Your task to perform on an android device: delete browsing data in the chrome app Image 0: 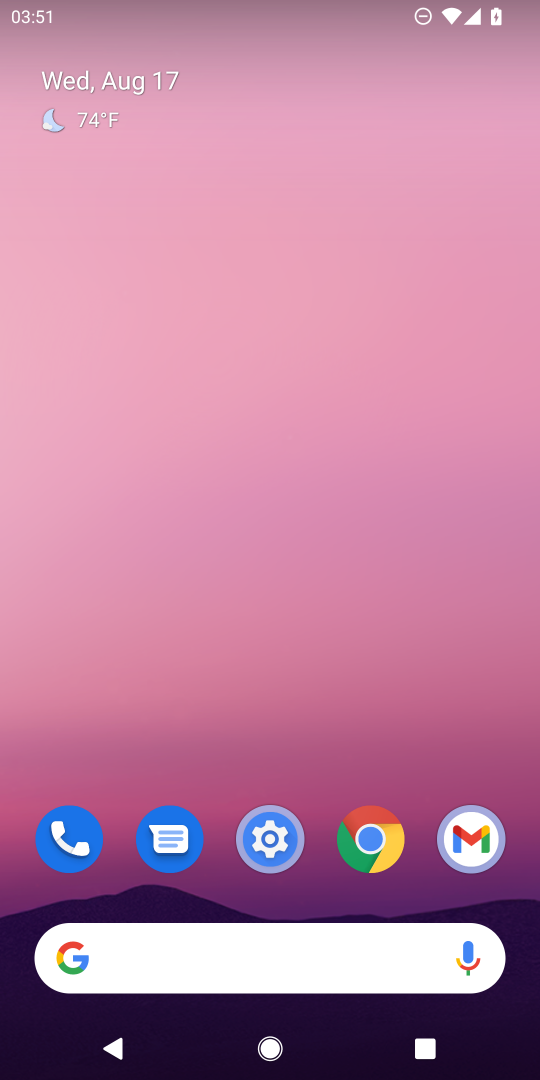
Step 0: click (358, 833)
Your task to perform on an android device: delete browsing data in the chrome app Image 1: 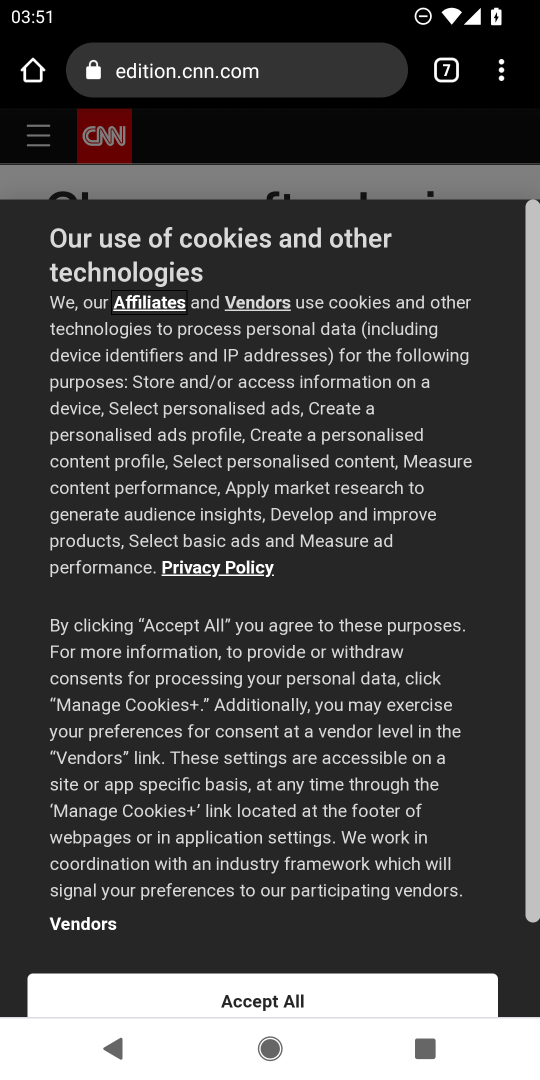
Step 1: press home button
Your task to perform on an android device: delete browsing data in the chrome app Image 2: 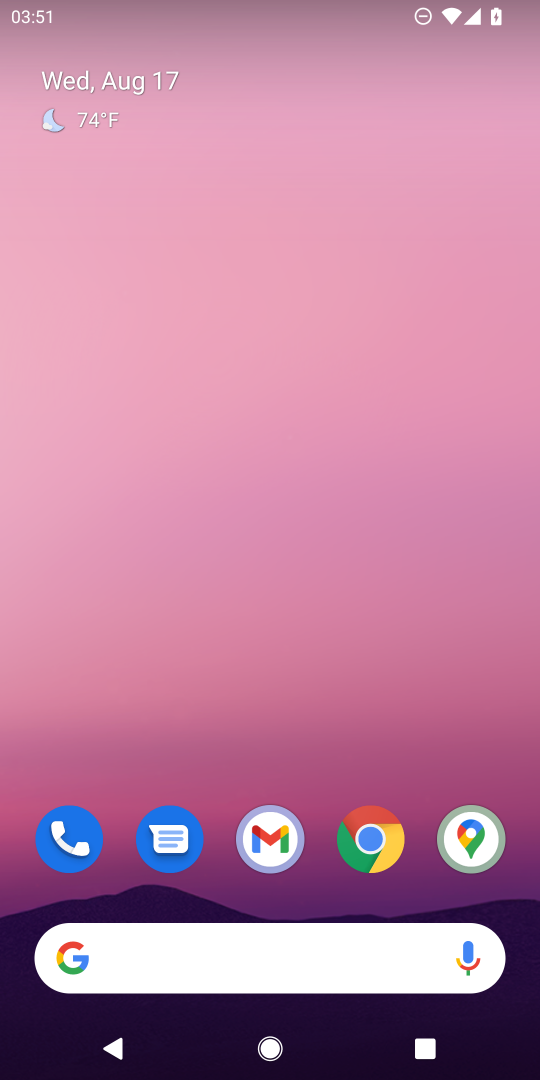
Step 2: click (366, 837)
Your task to perform on an android device: delete browsing data in the chrome app Image 3: 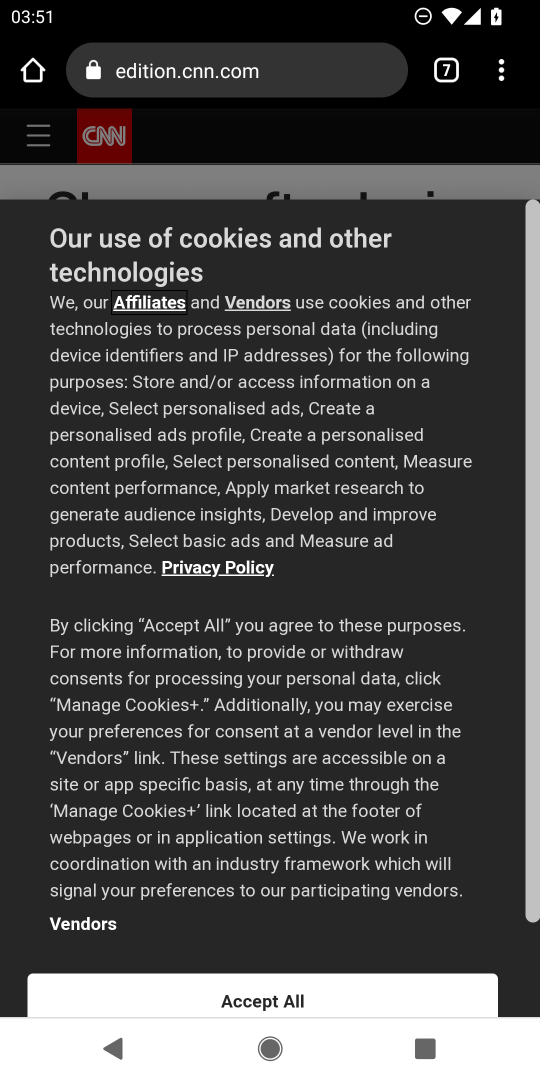
Step 3: click (502, 79)
Your task to perform on an android device: delete browsing data in the chrome app Image 4: 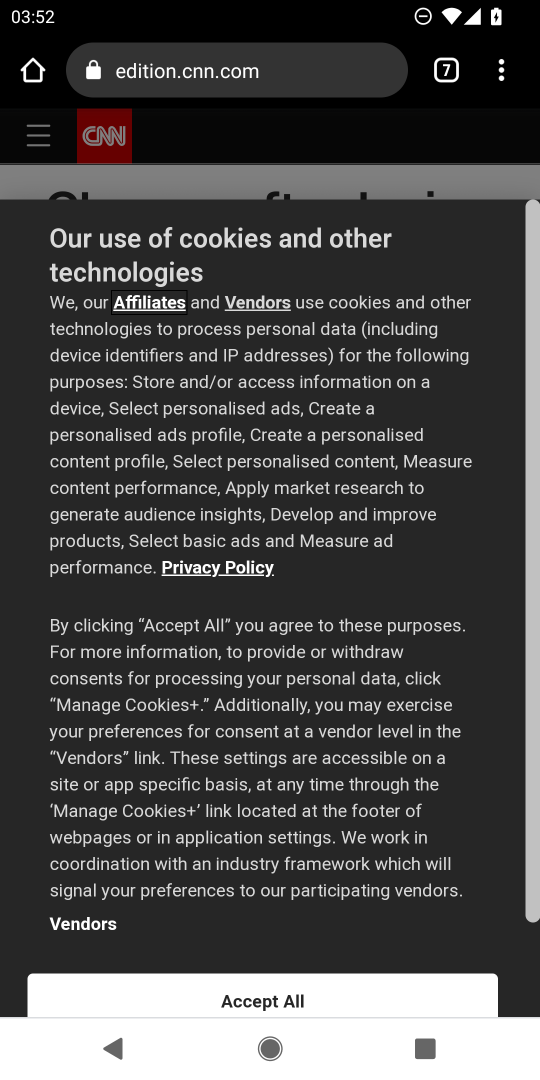
Step 4: drag from (502, 76) to (284, 369)
Your task to perform on an android device: delete browsing data in the chrome app Image 5: 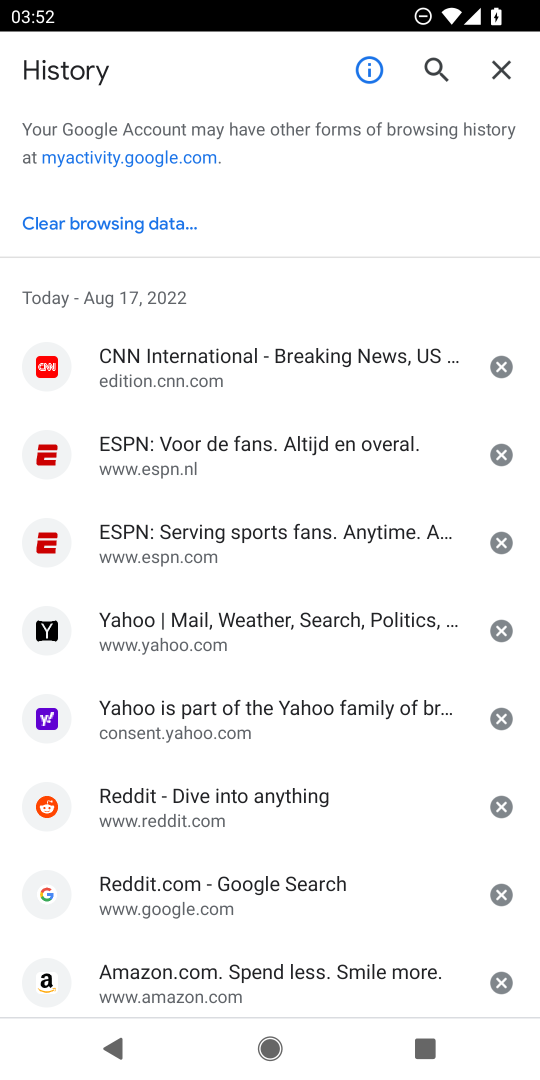
Step 5: click (116, 224)
Your task to perform on an android device: delete browsing data in the chrome app Image 6: 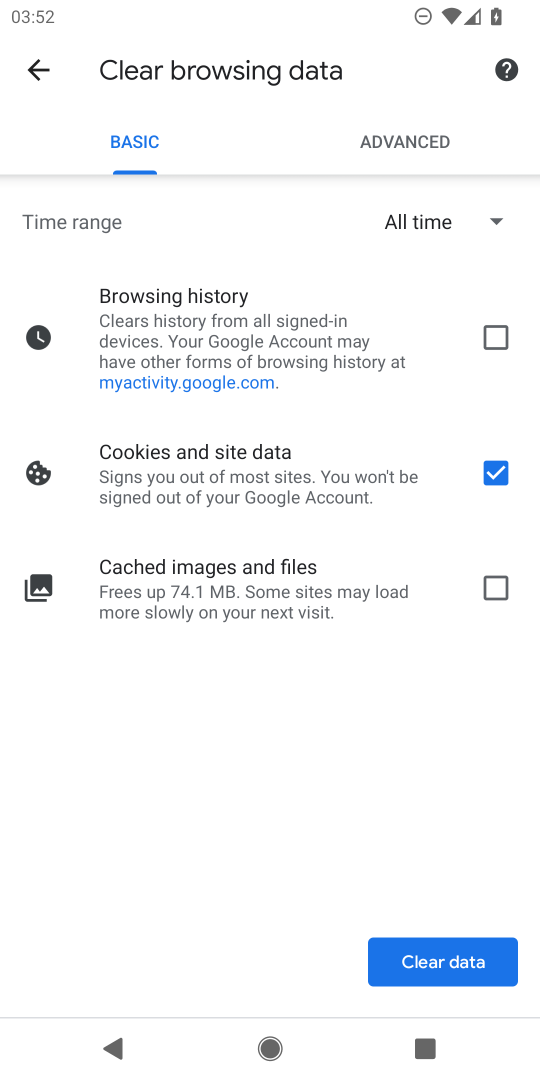
Step 6: click (491, 336)
Your task to perform on an android device: delete browsing data in the chrome app Image 7: 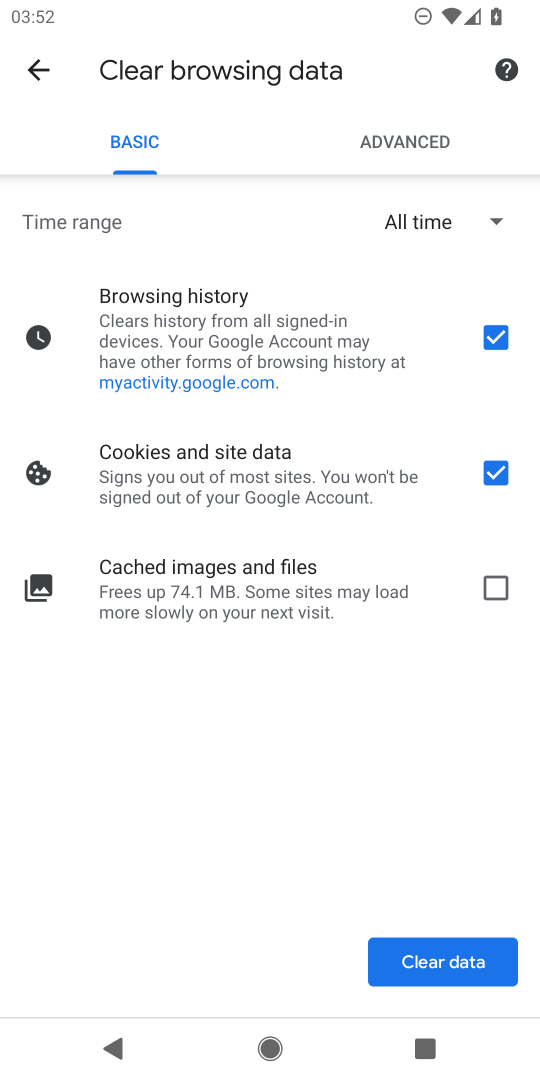
Step 7: click (493, 463)
Your task to perform on an android device: delete browsing data in the chrome app Image 8: 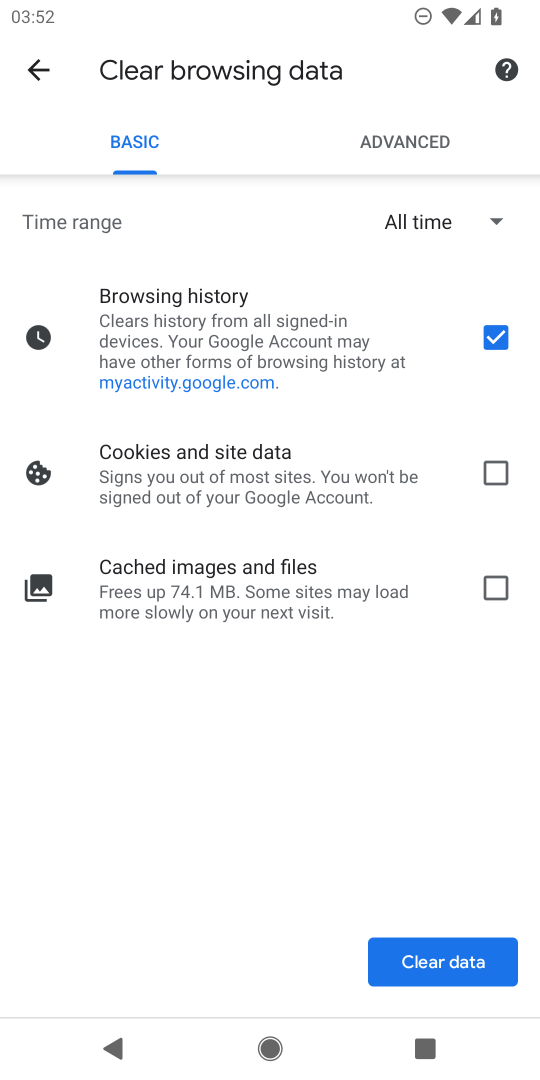
Step 8: click (437, 955)
Your task to perform on an android device: delete browsing data in the chrome app Image 9: 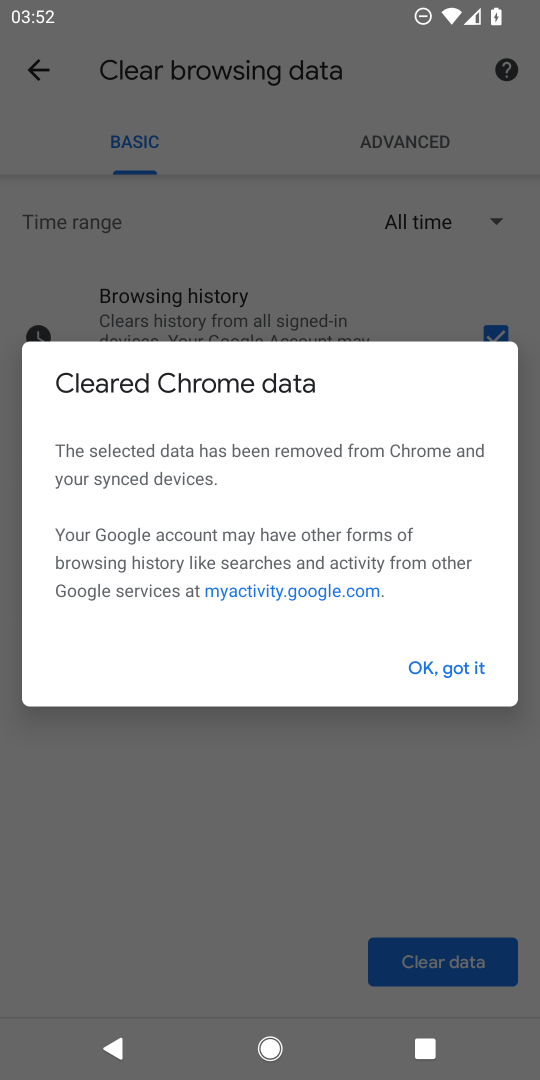
Step 9: click (454, 670)
Your task to perform on an android device: delete browsing data in the chrome app Image 10: 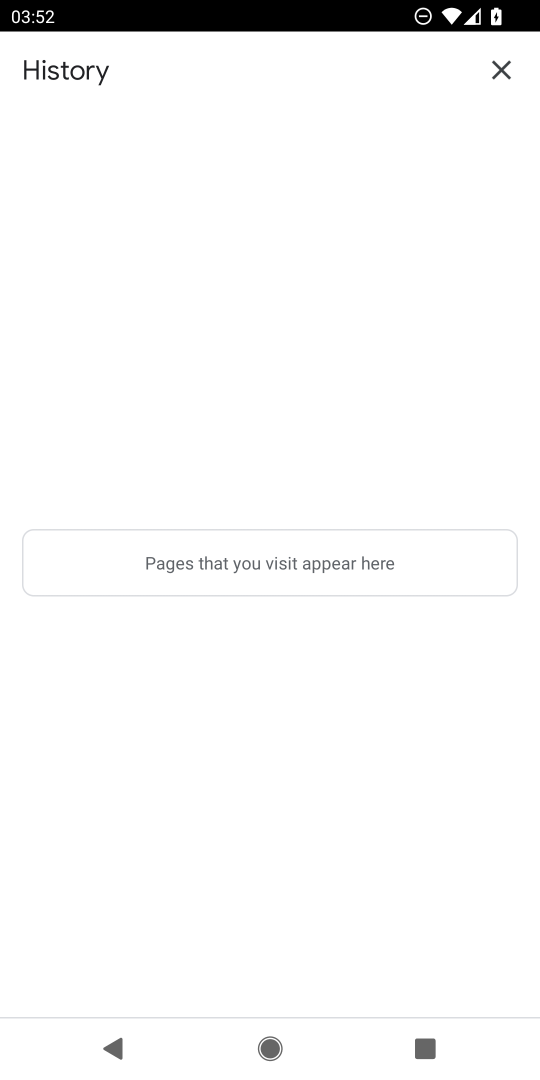
Step 10: task complete